Your task to perform on an android device: turn notification dots off Image 0: 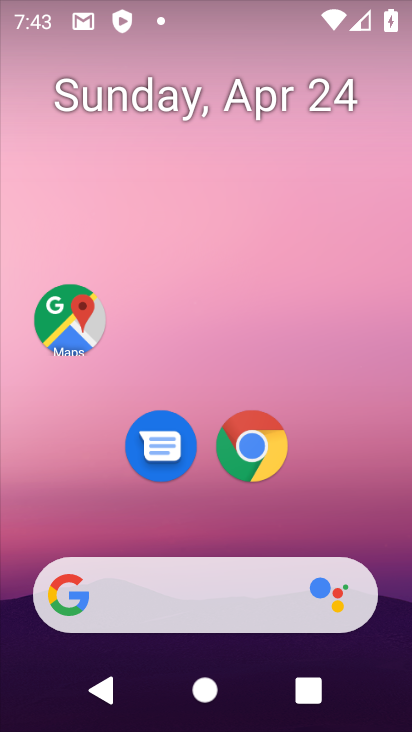
Step 0: drag from (223, 463) to (218, 71)
Your task to perform on an android device: turn notification dots off Image 1: 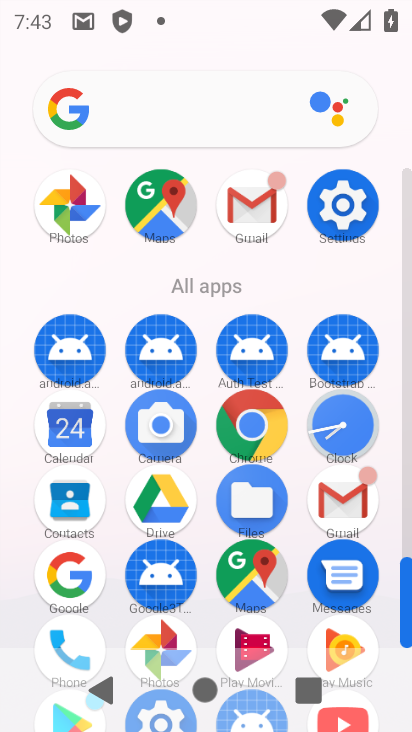
Step 1: click (345, 212)
Your task to perform on an android device: turn notification dots off Image 2: 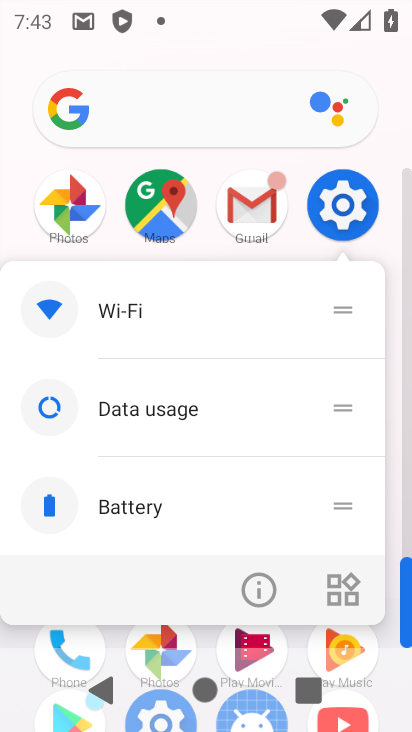
Step 2: click (339, 210)
Your task to perform on an android device: turn notification dots off Image 3: 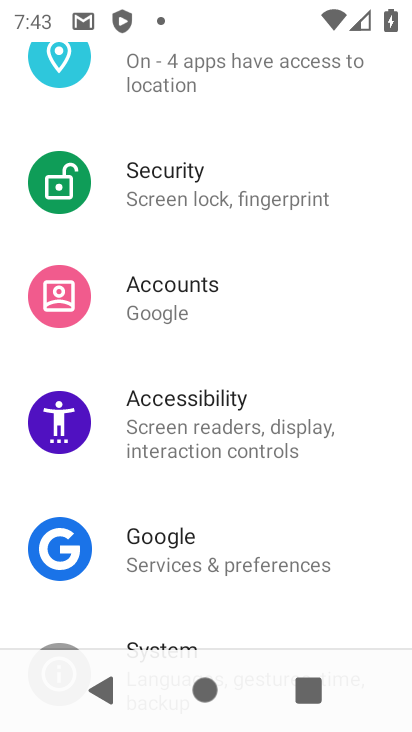
Step 3: drag from (207, 436) to (305, 135)
Your task to perform on an android device: turn notification dots off Image 4: 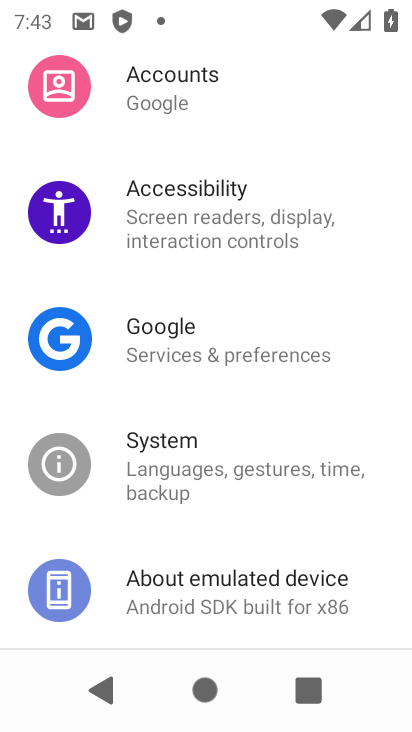
Step 4: drag from (206, 345) to (158, 627)
Your task to perform on an android device: turn notification dots off Image 5: 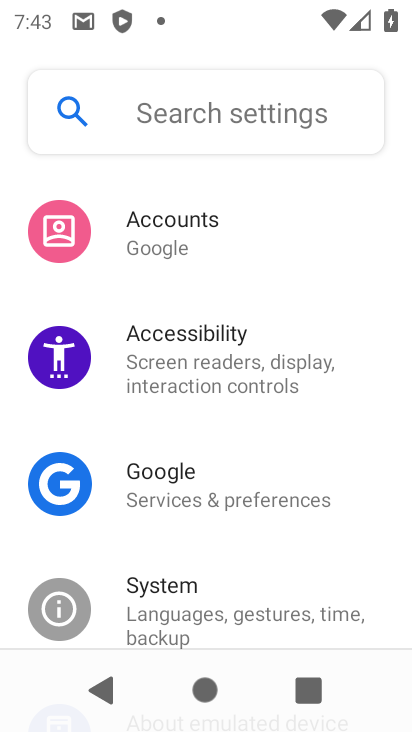
Step 5: drag from (242, 319) to (156, 659)
Your task to perform on an android device: turn notification dots off Image 6: 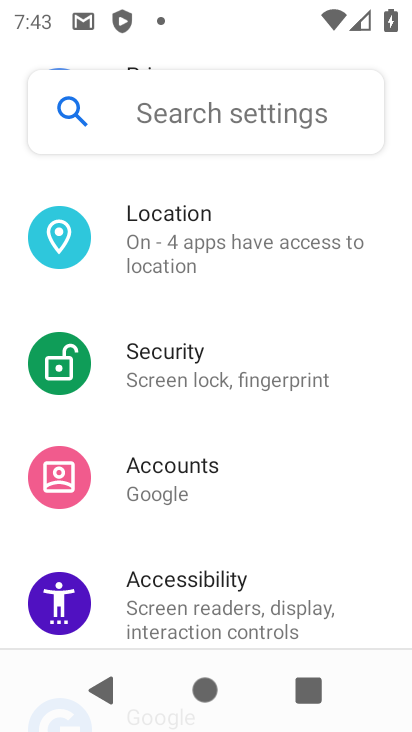
Step 6: drag from (240, 364) to (245, 503)
Your task to perform on an android device: turn notification dots off Image 7: 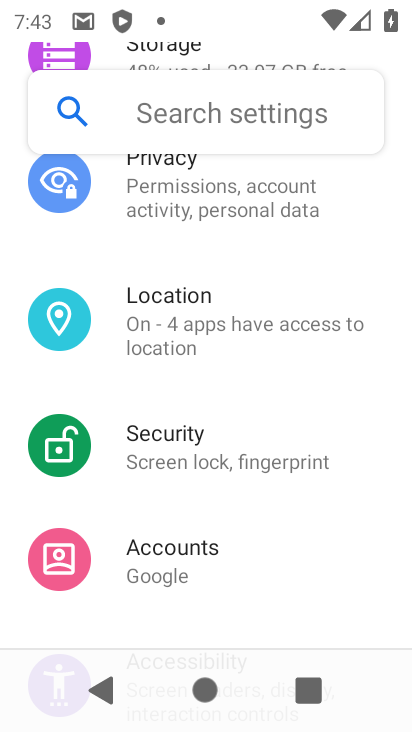
Step 7: drag from (239, 359) to (241, 531)
Your task to perform on an android device: turn notification dots off Image 8: 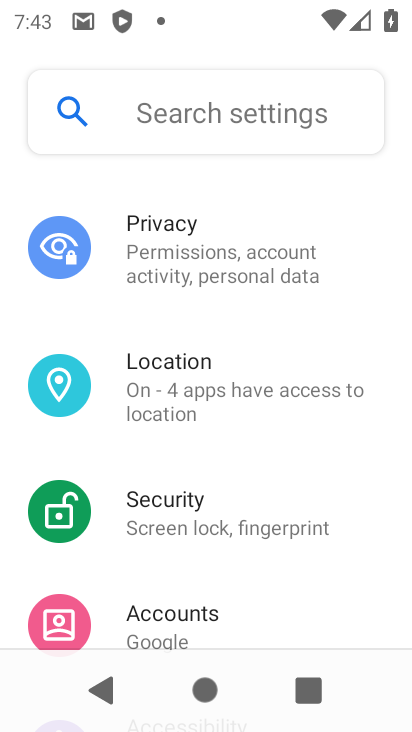
Step 8: drag from (221, 354) to (180, 611)
Your task to perform on an android device: turn notification dots off Image 9: 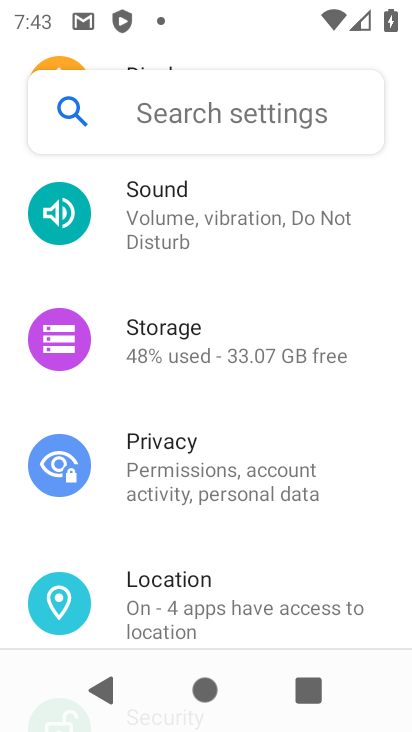
Step 9: drag from (200, 383) to (182, 630)
Your task to perform on an android device: turn notification dots off Image 10: 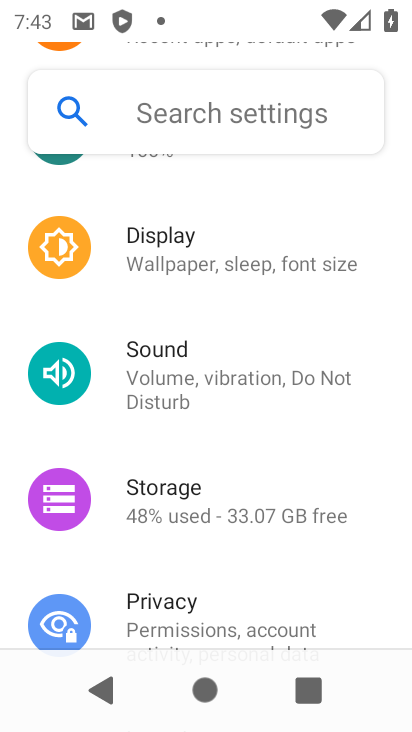
Step 10: drag from (237, 407) to (231, 608)
Your task to perform on an android device: turn notification dots off Image 11: 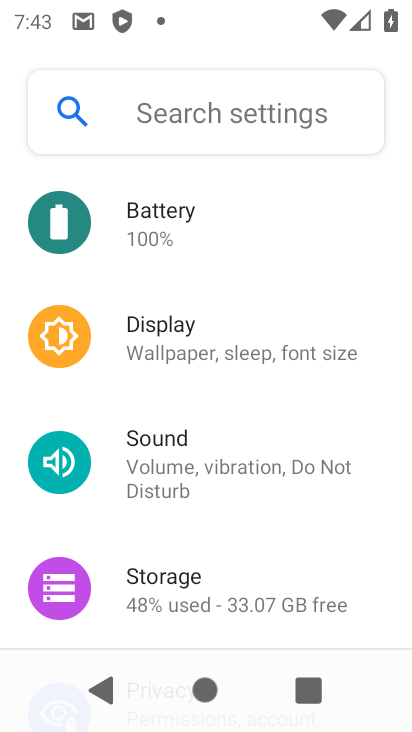
Step 11: drag from (265, 373) to (226, 551)
Your task to perform on an android device: turn notification dots off Image 12: 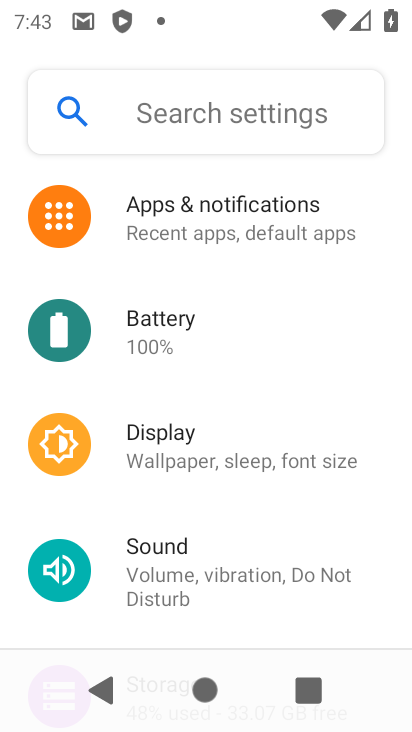
Step 12: click (252, 236)
Your task to perform on an android device: turn notification dots off Image 13: 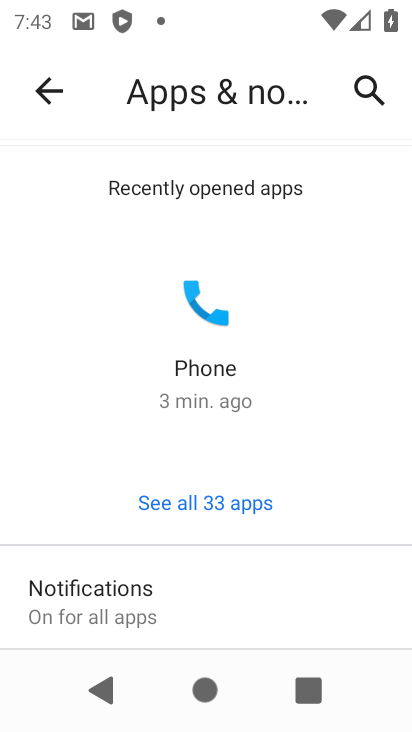
Step 13: drag from (189, 508) to (219, 289)
Your task to perform on an android device: turn notification dots off Image 14: 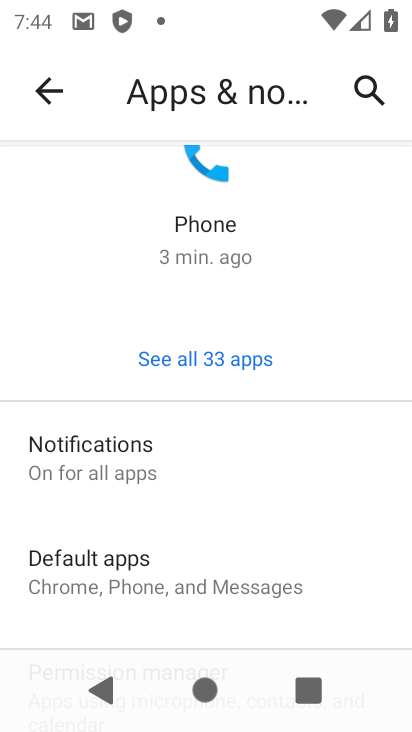
Step 14: click (180, 478)
Your task to perform on an android device: turn notification dots off Image 15: 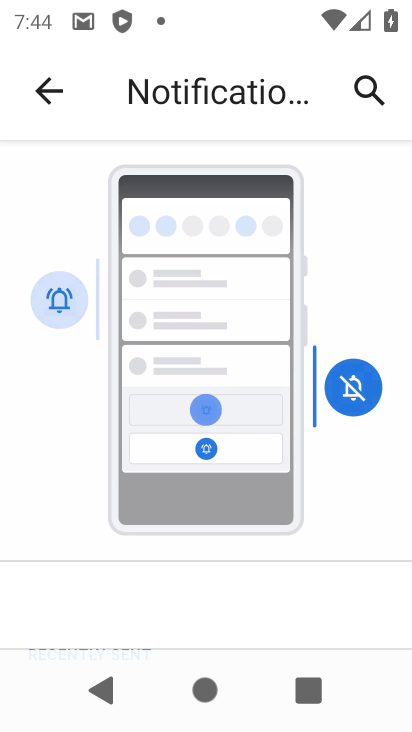
Step 15: drag from (270, 497) to (380, 1)
Your task to perform on an android device: turn notification dots off Image 16: 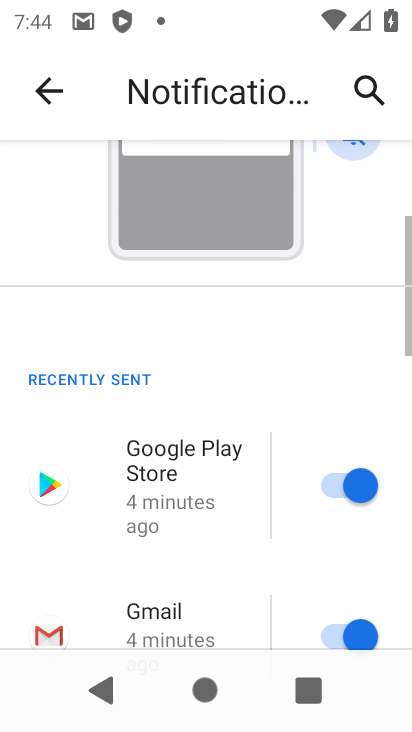
Step 16: drag from (216, 561) to (301, 22)
Your task to perform on an android device: turn notification dots off Image 17: 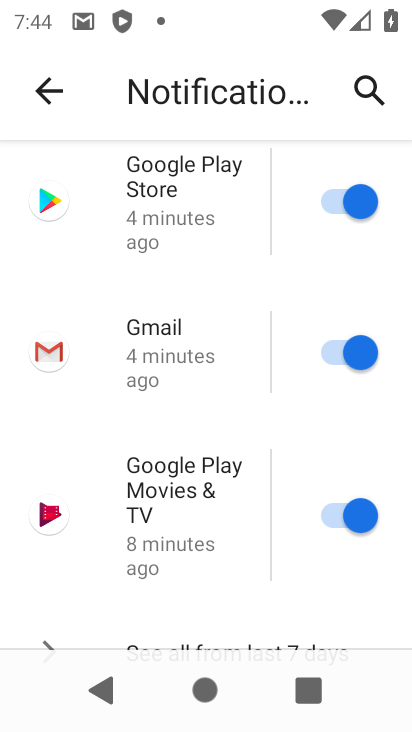
Step 17: drag from (219, 397) to (282, 24)
Your task to perform on an android device: turn notification dots off Image 18: 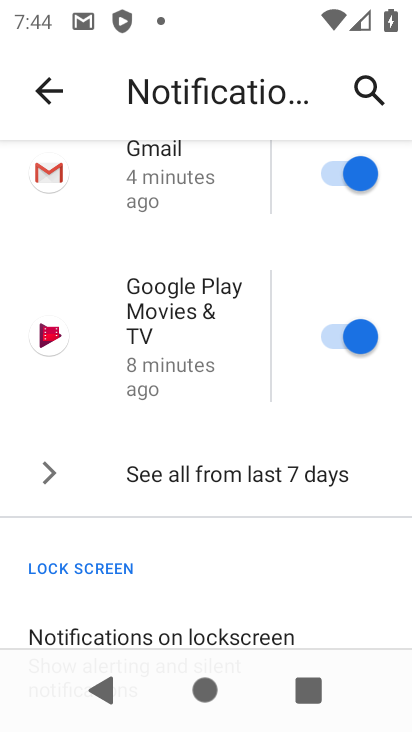
Step 18: drag from (212, 438) to (264, 107)
Your task to perform on an android device: turn notification dots off Image 19: 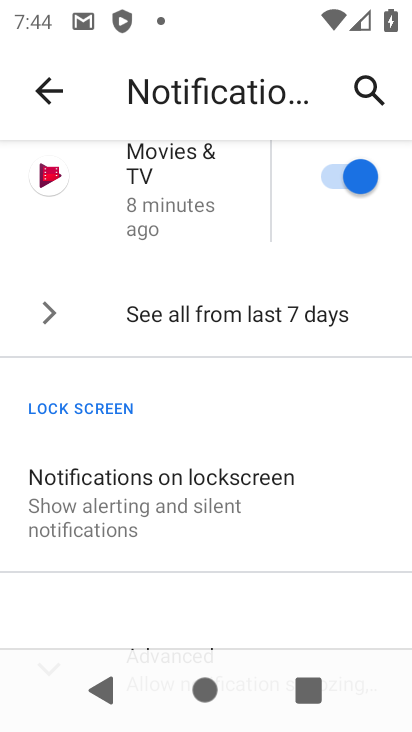
Step 19: drag from (219, 448) to (273, 172)
Your task to perform on an android device: turn notification dots off Image 20: 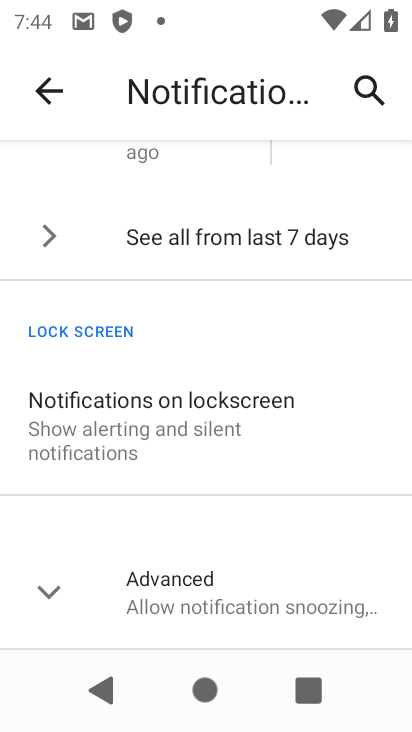
Step 20: click (240, 593)
Your task to perform on an android device: turn notification dots off Image 21: 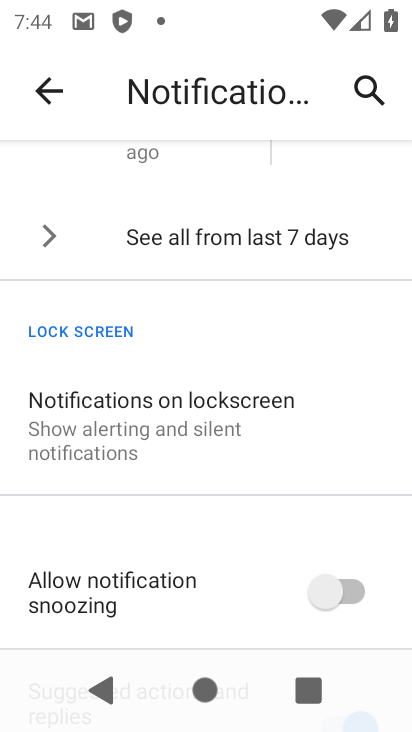
Step 21: drag from (216, 415) to (313, 9)
Your task to perform on an android device: turn notification dots off Image 22: 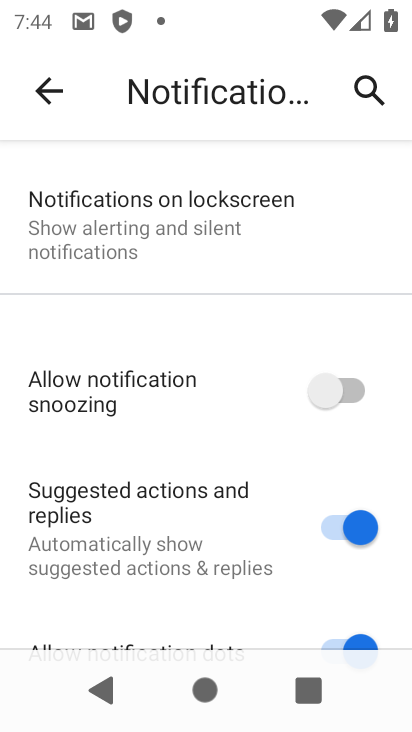
Step 22: drag from (204, 565) to (289, 129)
Your task to perform on an android device: turn notification dots off Image 23: 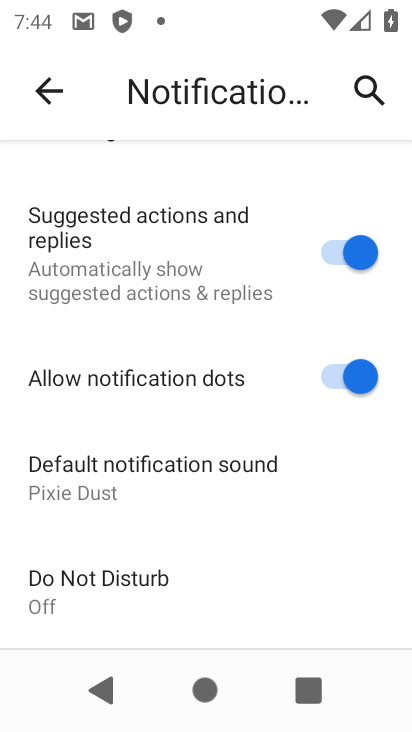
Step 23: click (336, 388)
Your task to perform on an android device: turn notification dots off Image 24: 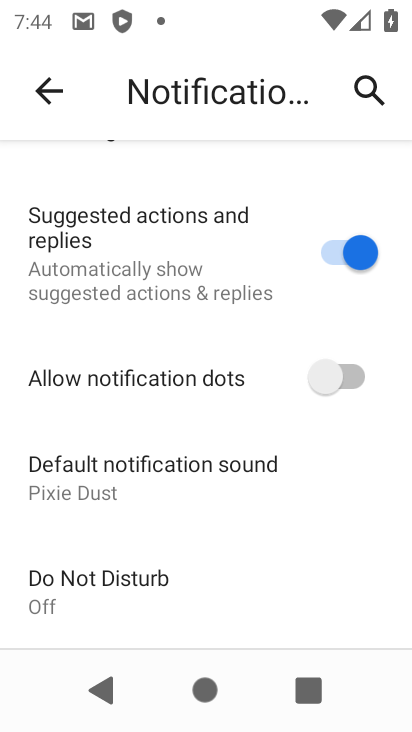
Step 24: task complete